Your task to perform on an android device: Find coffee shops on Maps Image 0: 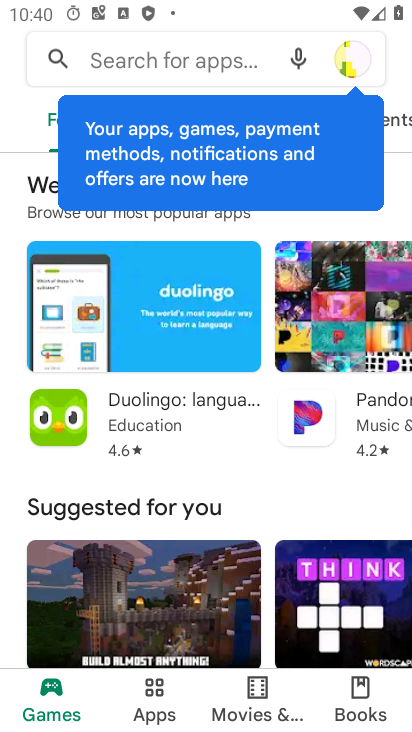
Step 0: press home button
Your task to perform on an android device: Find coffee shops on Maps Image 1: 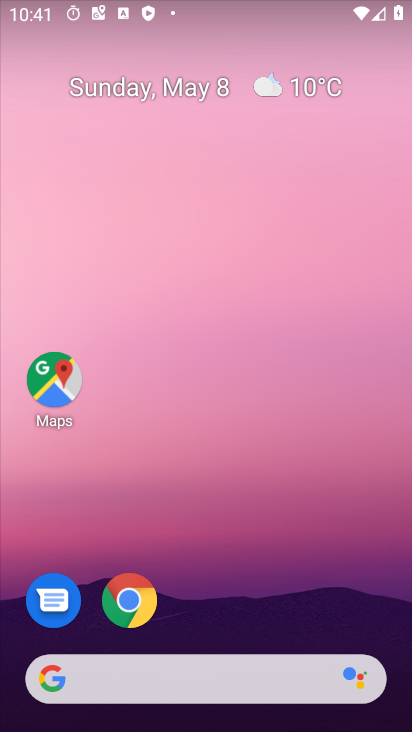
Step 1: drag from (226, 642) to (318, 194)
Your task to perform on an android device: Find coffee shops on Maps Image 2: 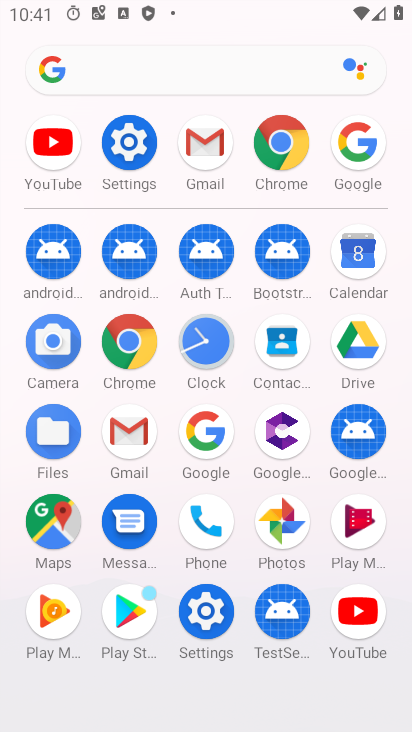
Step 2: click (55, 536)
Your task to perform on an android device: Find coffee shops on Maps Image 3: 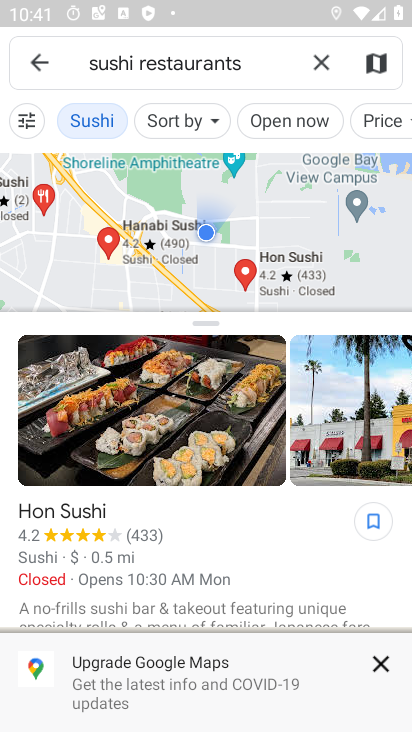
Step 3: click (322, 60)
Your task to perform on an android device: Find coffee shops on Maps Image 4: 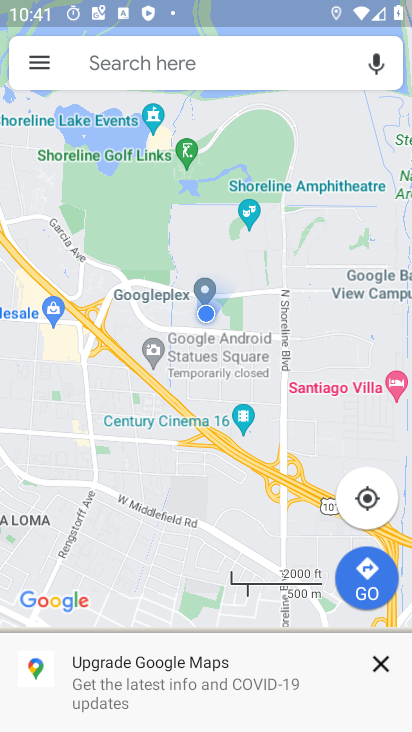
Step 4: click (304, 63)
Your task to perform on an android device: Find coffee shops on Maps Image 5: 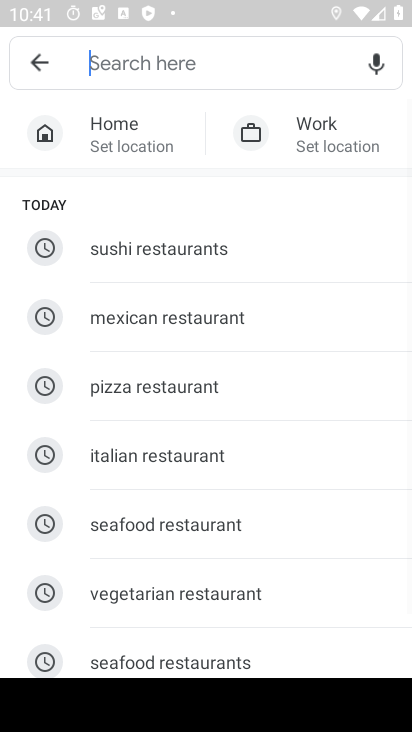
Step 5: drag from (216, 567) to (270, 263)
Your task to perform on an android device: Find coffee shops on Maps Image 6: 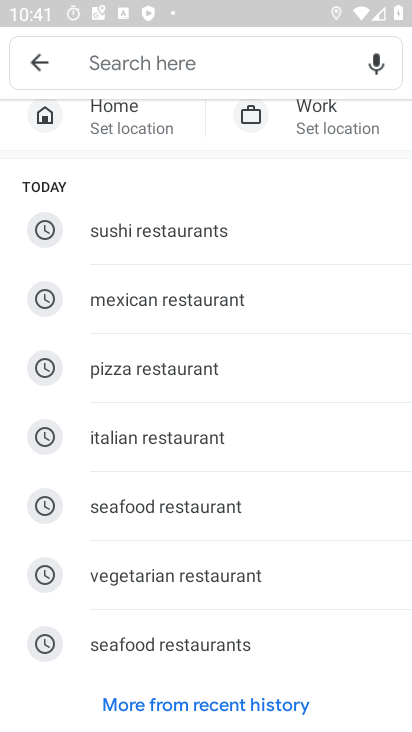
Step 6: click (195, 52)
Your task to perform on an android device: Find coffee shops on Maps Image 7: 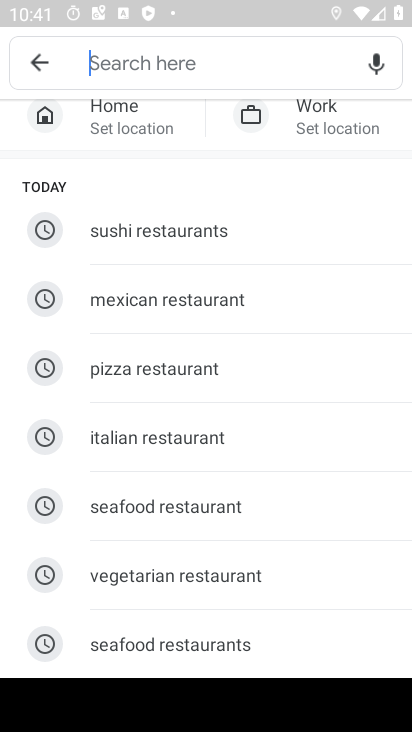
Step 7: type "coffee shops"
Your task to perform on an android device: Find coffee shops on Maps Image 8: 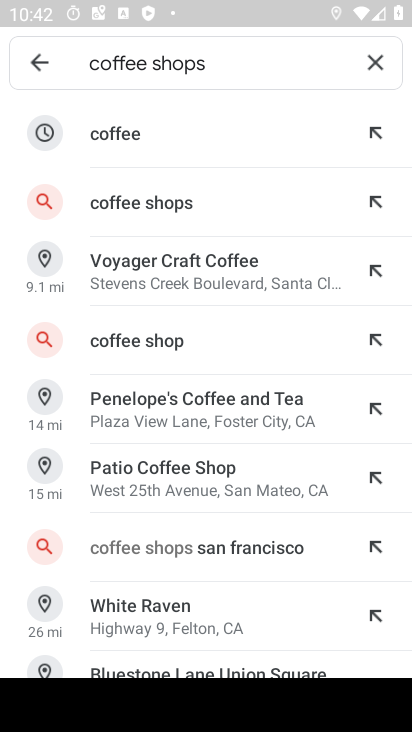
Step 8: click (192, 197)
Your task to perform on an android device: Find coffee shops on Maps Image 9: 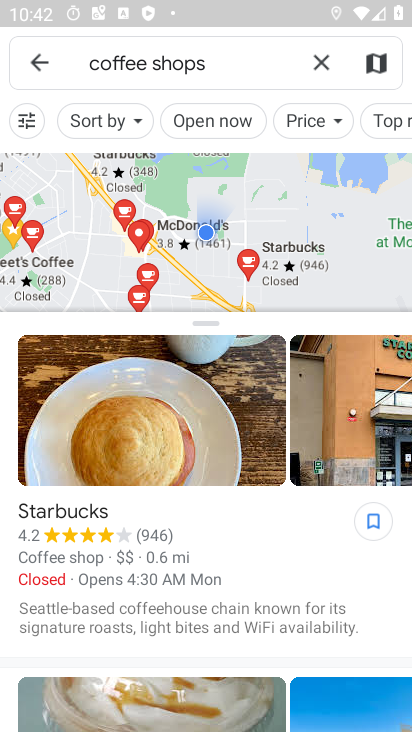
Step 9: task complete